Your task to perform on an android device: Go to internet settings Image 0: 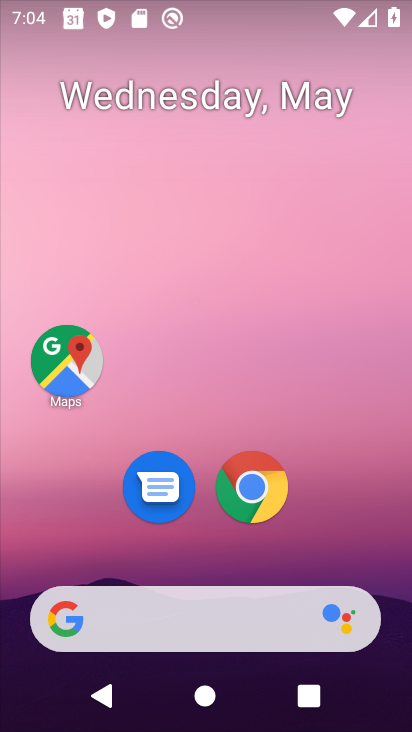
Step 0: drag from (374, 498) to (388, 24)
Your task to perform on an android device: Go to internet settings Image 1: 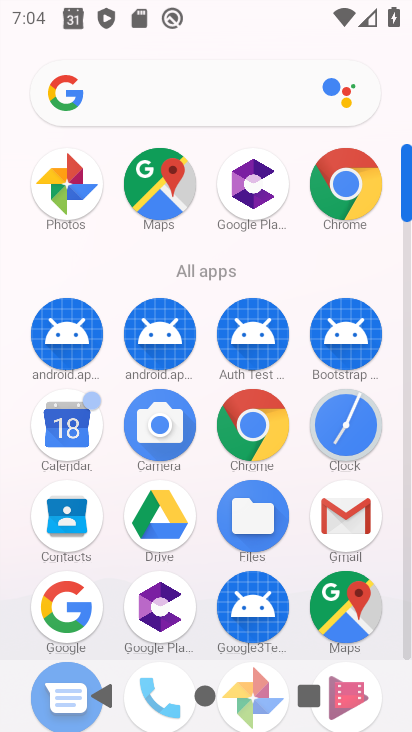
Step 1: drag from (383, 638) to (410, 347)
Your task to perform on an android device: Go to internet settings Image 2: 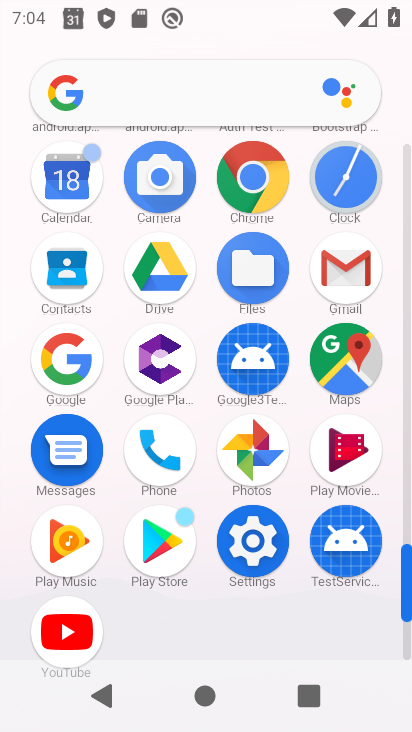
Step 2: drag from (390, 646) to (411, 431)
Your task to perform on an android device: Go to internet settings Image 3: 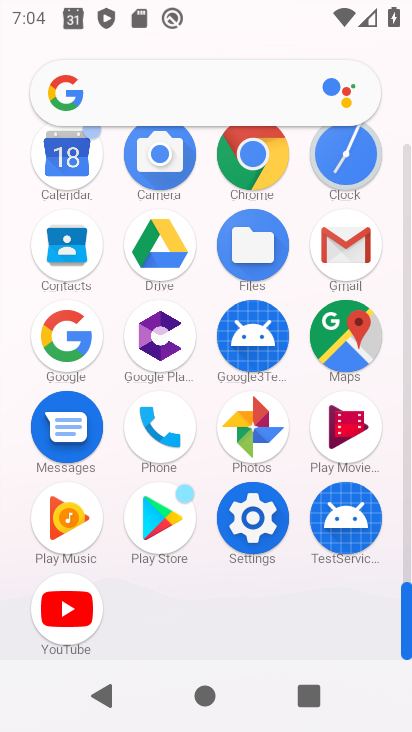
Step 3: click (292, 534)
Your task to perform on an android device: Go to internet settings Image 4: 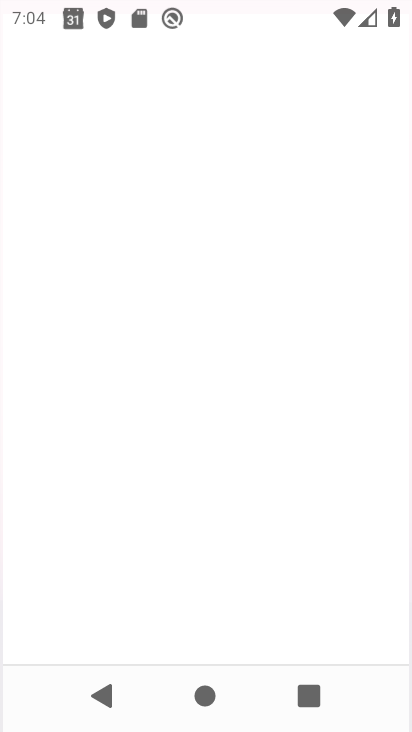
Step 4: click (279, 533)
Your task to perform on an android device: Go to internet settings Image 5: 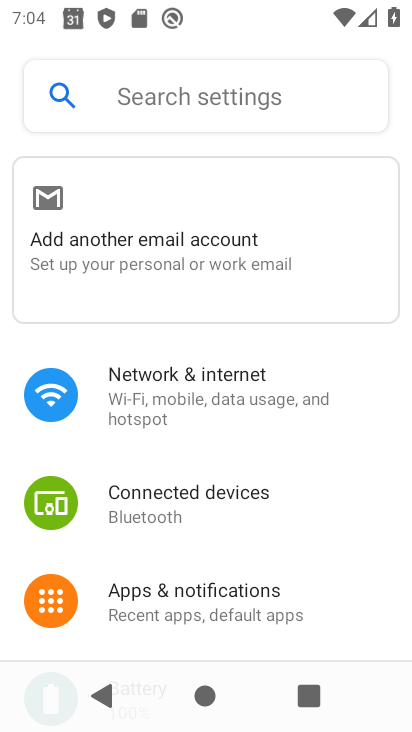
Step 5: click (240, 398)
Your task to perform on an android device: Go to internet settings Image 6: 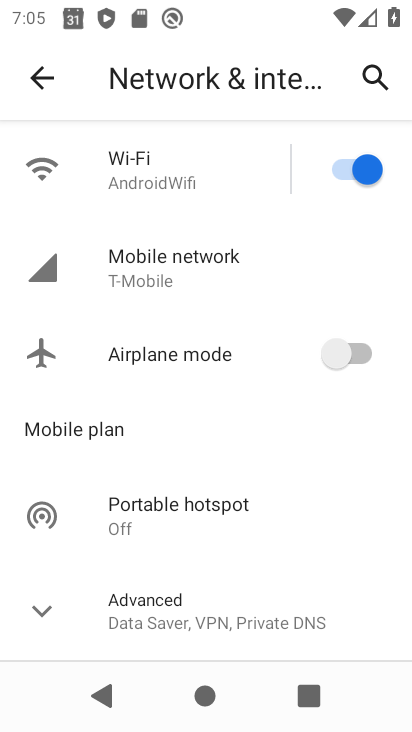
Step 6: click (211, 257)
Your task to perform on an android device: Go to internet settings Image 7: 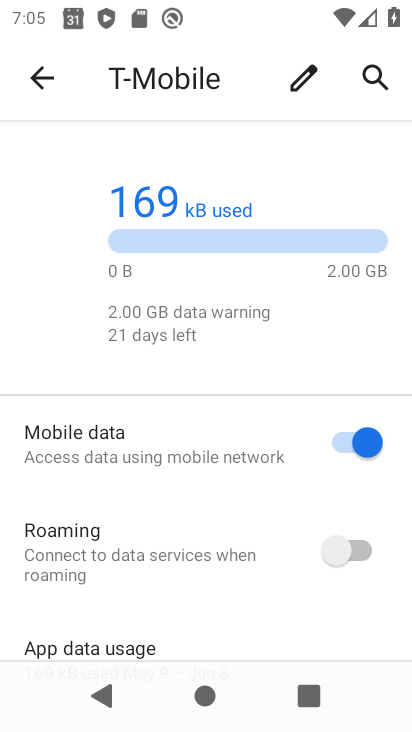
Step 7: task complete